Your task to perform on an android device: Turn on the flashlight Image 0: 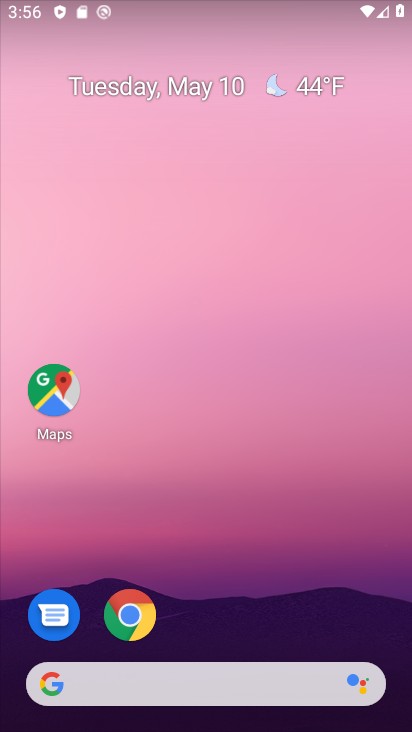
Step 0: drag from (216, 730) to (222, 116)
Your task to perform on an android device: Turn on the flashlight Image 1: 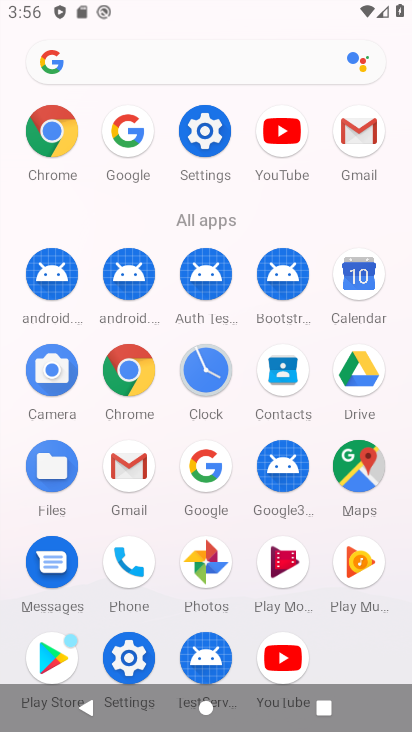
Step 1: click (205, 116)
Your task to perform on an android device: Turn on the flashlight Image 2: 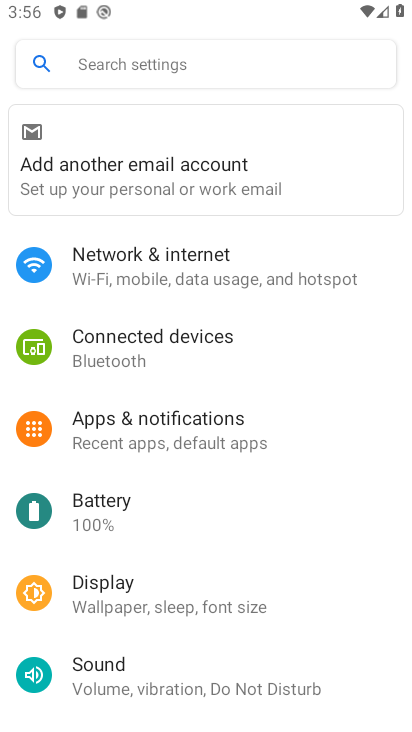
Step 2: task complete